Your task to perform on an android device: open a new tab in the chrome app Image 0: 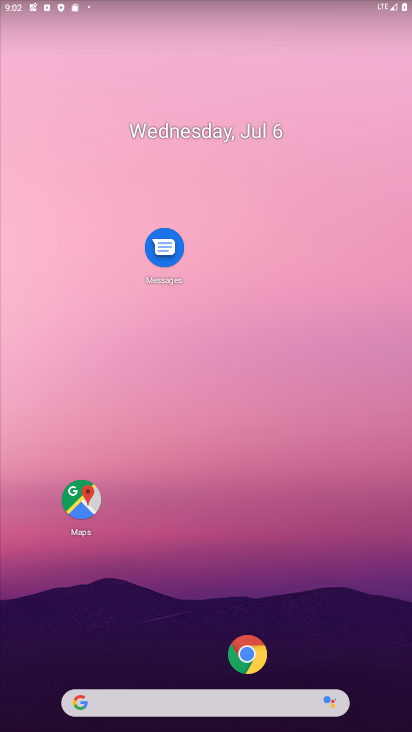
Step 0: click (225, 647)
Your task to perform on an android device: open a new tab in the chrome app Image 1: 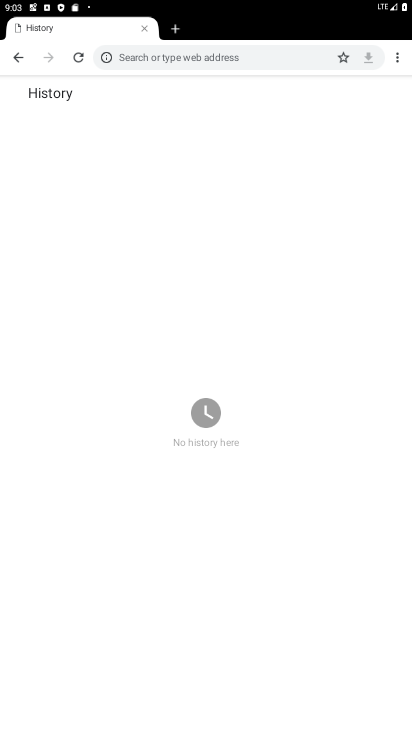
Step 1: click (399, 54)
Your task to perform on an android device: open a new tab in the chrome app Image 2: 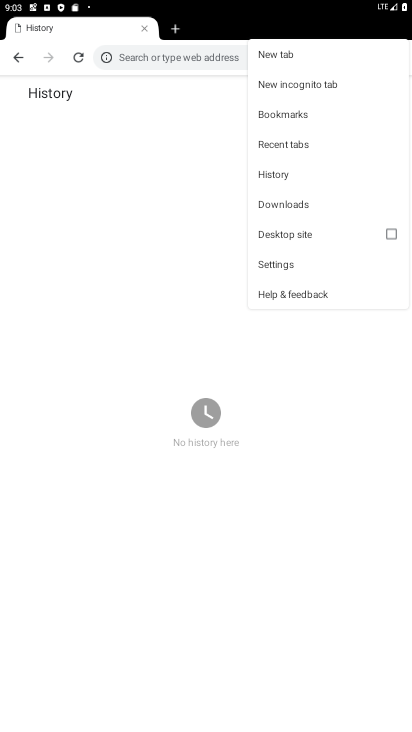
Step 2: click (300, 54)
Your task to perform on an android device: open a new tab in the chrome app Image 3: 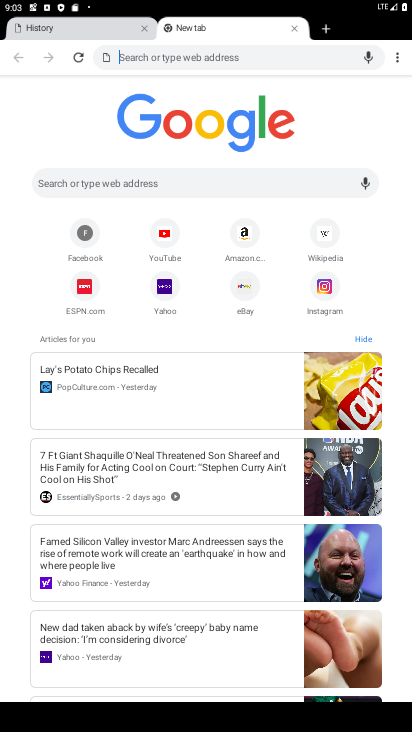
Step 3: task complete